Your task to perform on an android device: Open Reddit.com Image 0: 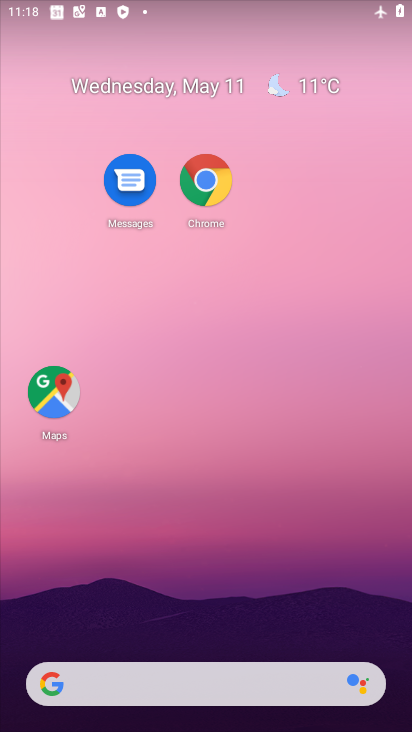
Step 0: drag from (211, 605) to (205, 3)
Your task to perform on an android device: Open Reddit.com Image 1: 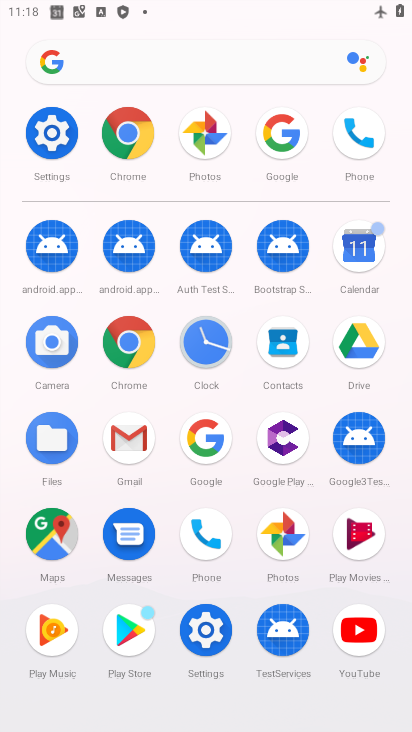
Step 1: click (137, 353)
Your task to perform on an android device: Open Reddit.com Image 2: 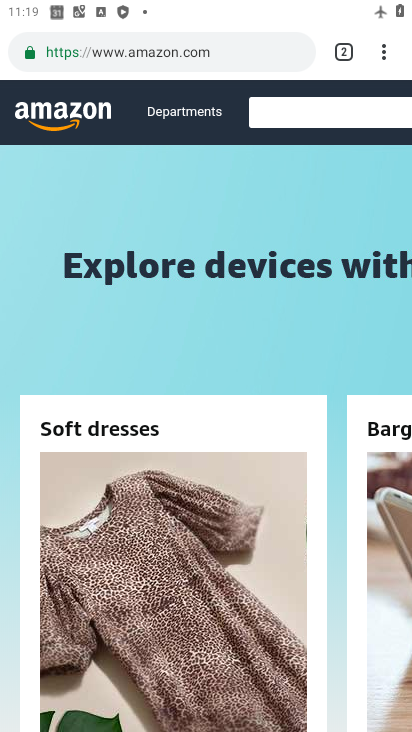
Step 2: click (382, 63)
Your task to perform on an android device: Open Reddit.com Image 3: 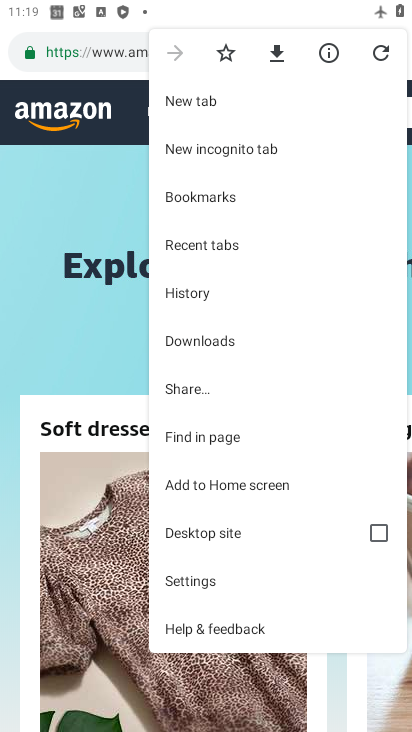
Step 3: click (241, 100)
Your task to perform on an android device: Open Reddit.com Image 4: 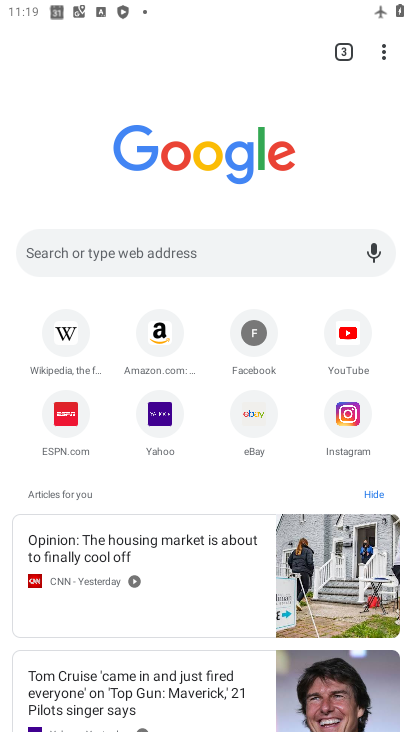
Step 4: click (156, 258)
Your task to perform on an android device: Open Reddit.com Image 5: 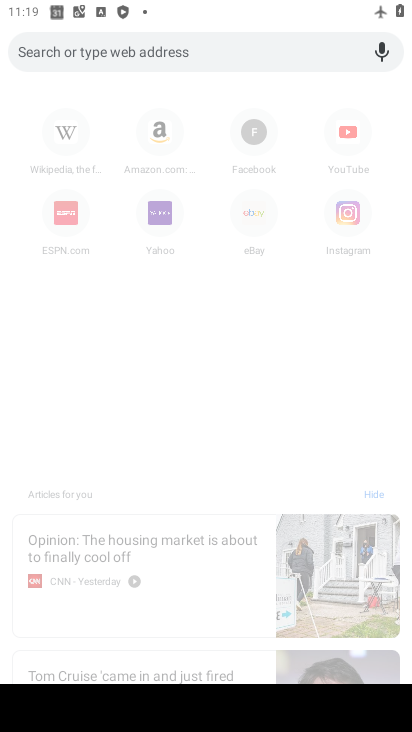
Step 5: click (119, 50)
Your task to perform on an android device: Open Reddit.com Image 6: 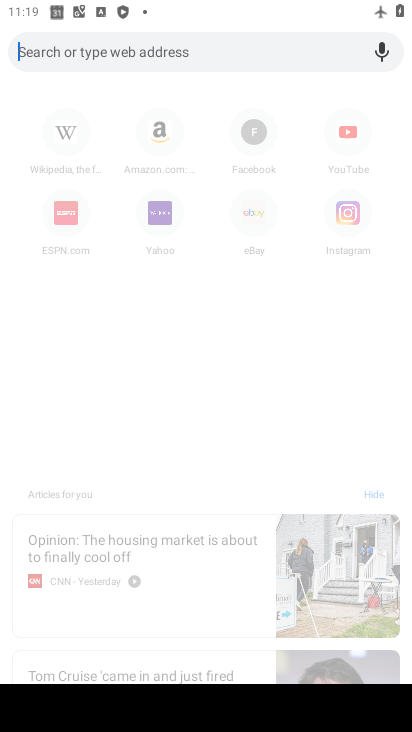
Step 6: type "Reddit.com"
Your task to perform on an android device: Open Reddit.com Image 7: 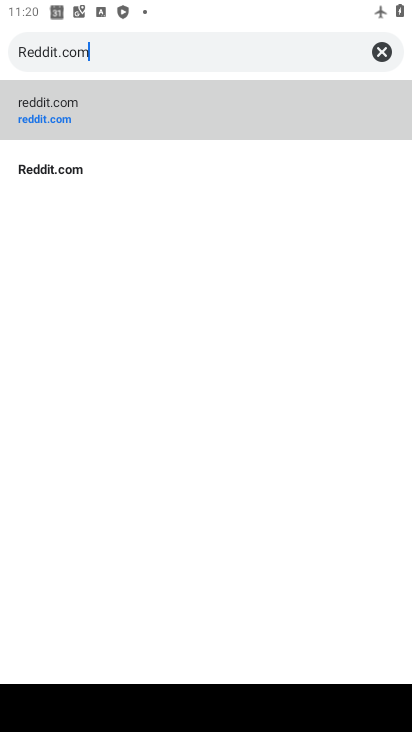
Step 7: type ""
Your task to perform on an android device: Open Reddit.com Image 8: 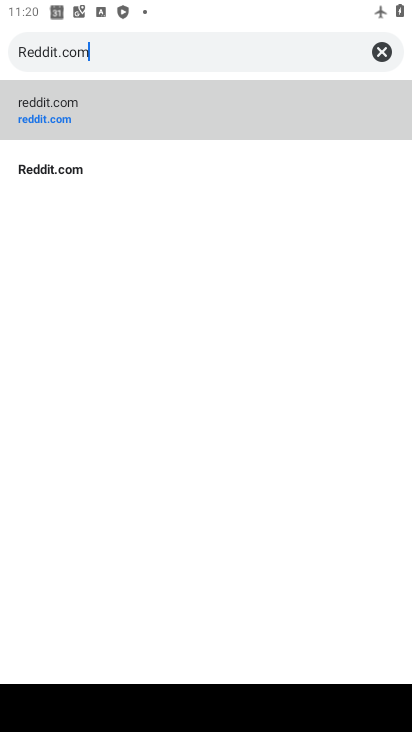
Step 8: click (102, 110)
Your task to perform on an android device: Open Reddit.com Image 9: 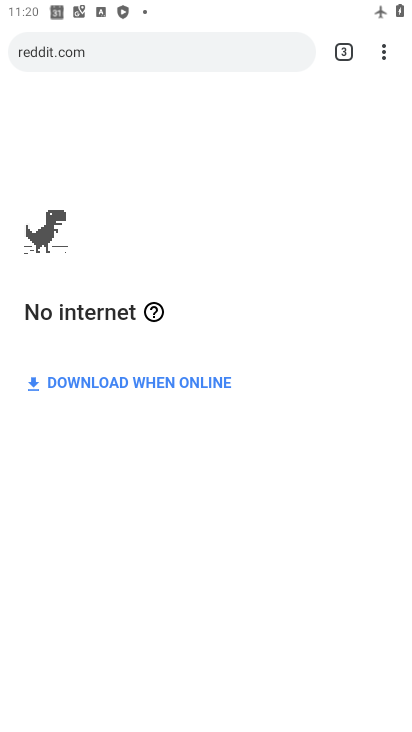
Step 9: task complete